Your task to perform on an android device: Open Google Maps Image 0: 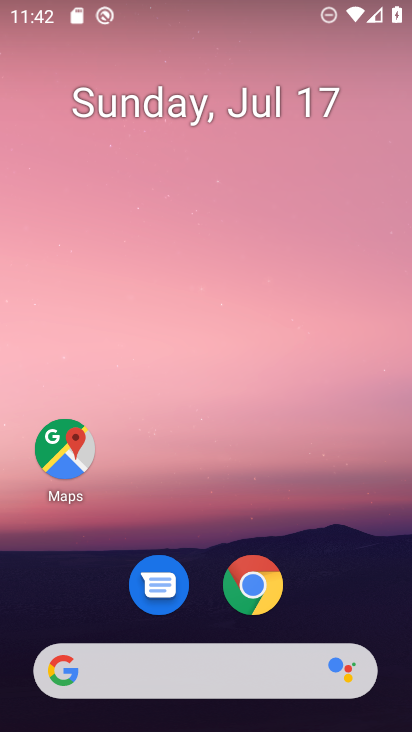
Step 0: press home button
Your task to perform on an android device: Open Google Maps Image 1: 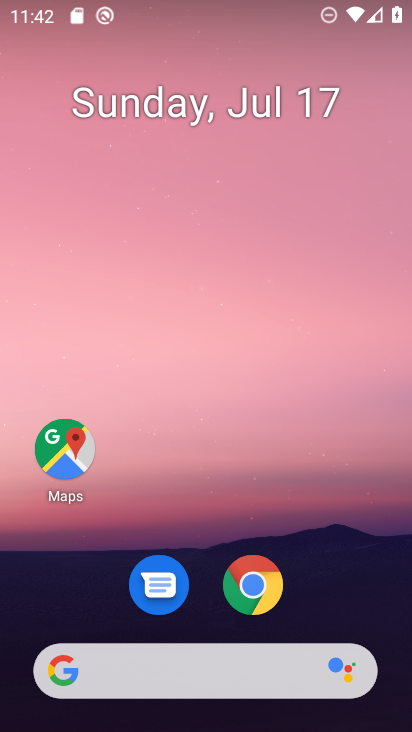
Step 1: click (59, 473)
Your task to perform on an android device: Open Google Maps Image 2: 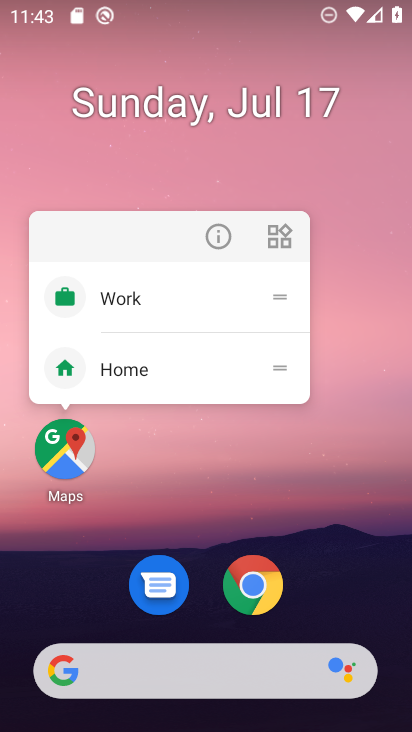
Step 2: click (67, 463)
Your task to perform on an android device: Open Google Maps Image 3: 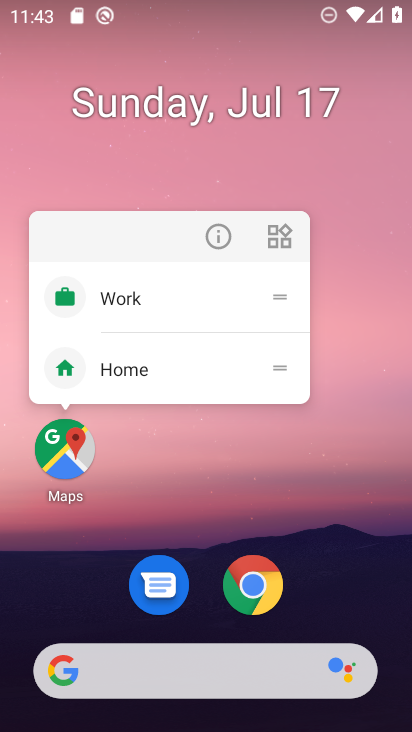
Step 3: click (67, 463)
Your task to perform on an android device: Open Google Maps Image 4: 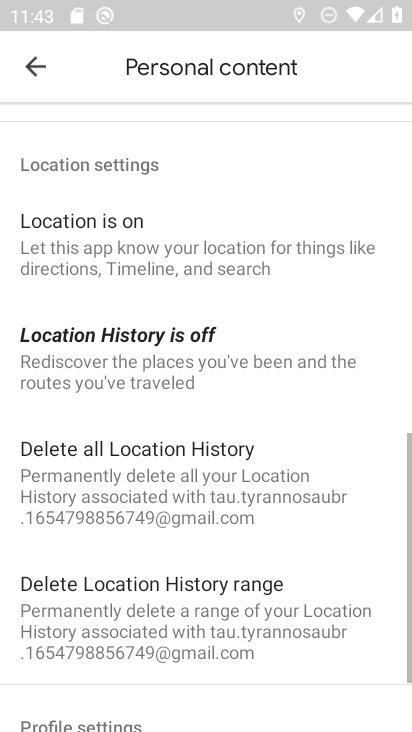
Step 4: click (40, 69)
Your task to perform on an android device: Open Google Maps Image 5: 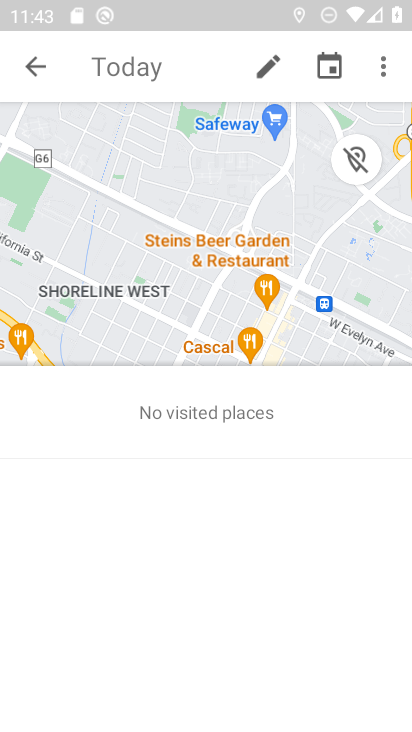
Step 5: click (40, 69)
Your task to perform on an android device: Open Google Maps Image 6: 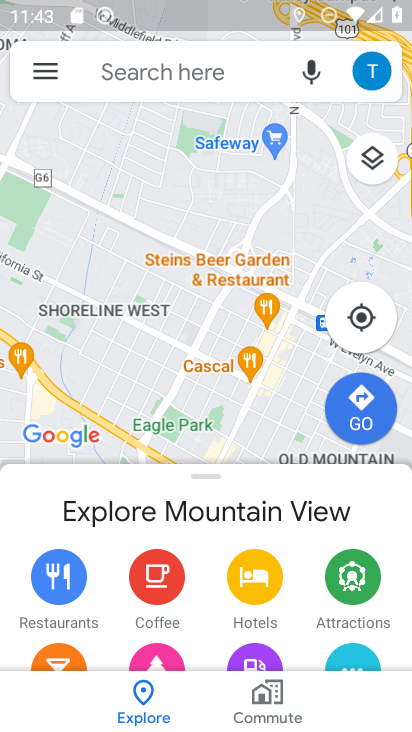
Step 6: task complete